Your task to perform on an android device: turn on notifications settings in the gmail app Image 0: 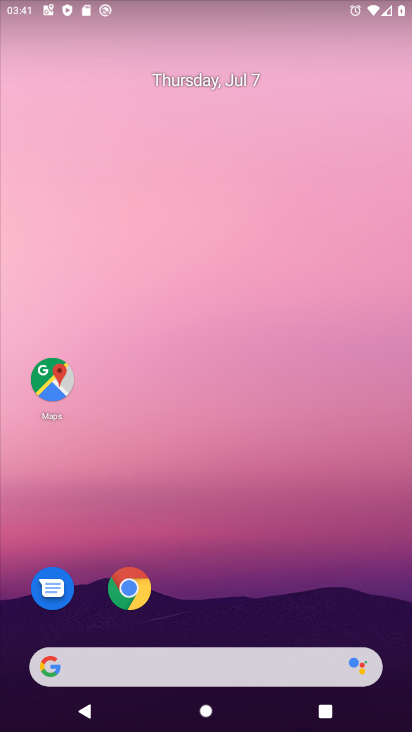
Step 0: drag from (186, 618) to (181, 340)
Your task to perform on an android device: turn on notifications settings in the gmail app Image 1: 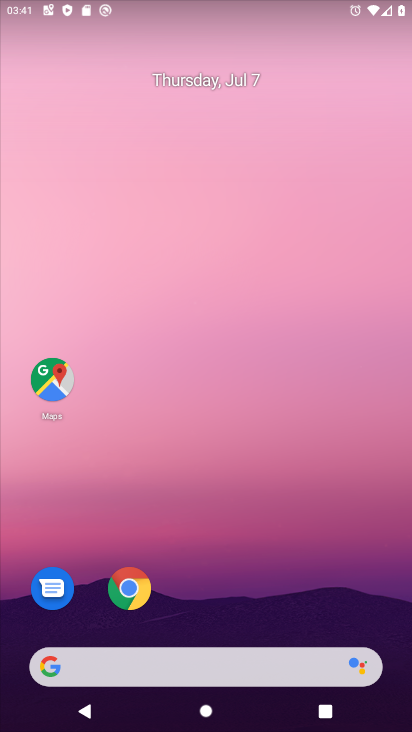
Step 1: drag from (252, 637) to (300, 201)
Your task to perform on an android device: turn on notifications settings in the gmail app Image 2: 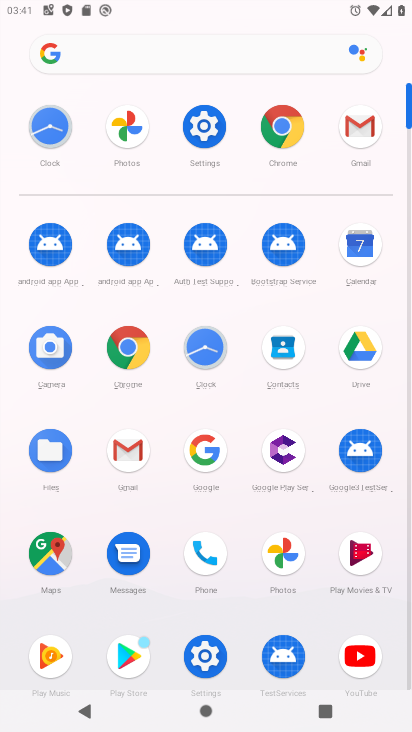
Step 2: click (130, 461)
Your task to perform on an android device: turn on notifications settings in the gmail app Image 3: 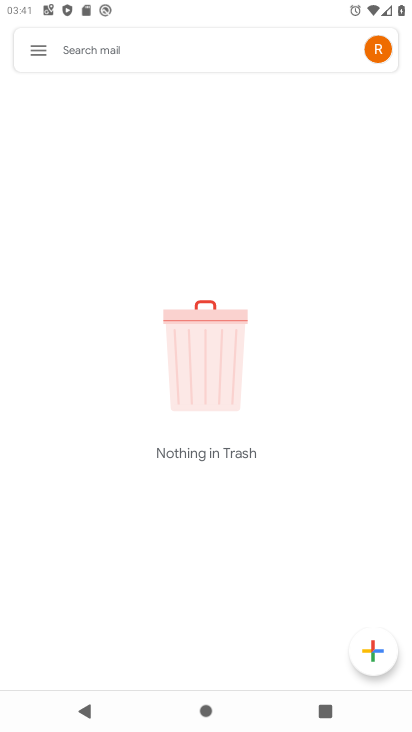
Step 3: click (30, 52)
Your task to perform on an android device: turn on notifications settings in the gmail app Image 4: 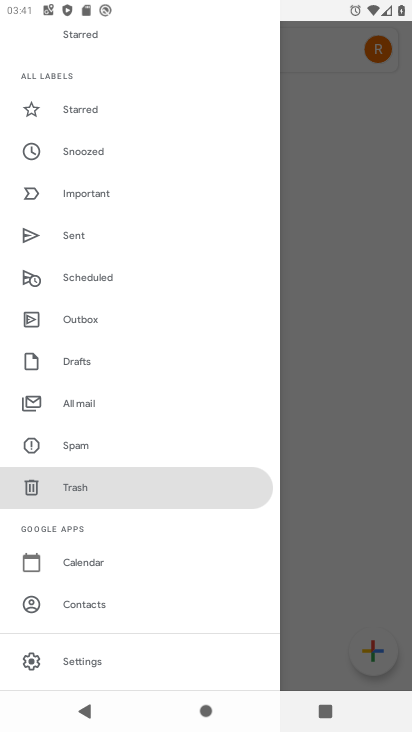
Step 4: click (97, 658)
Your task to perform on an android device: turn on notifications settings in the gmail app Image 5: 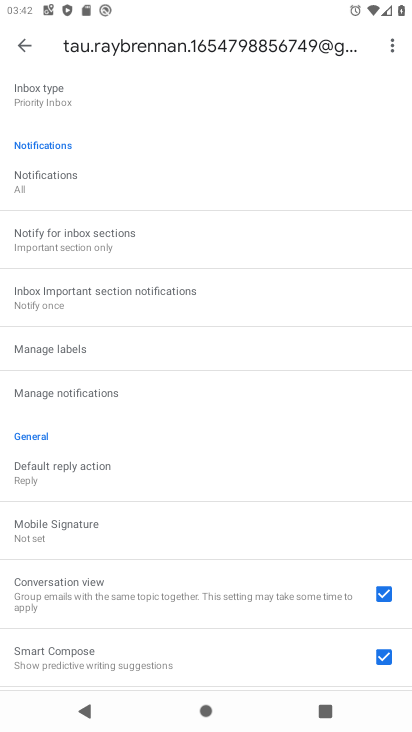
Step 5: click (58, 394)
Your task to perform on an android device: turn on notifications settings in the gmail app Image 6: 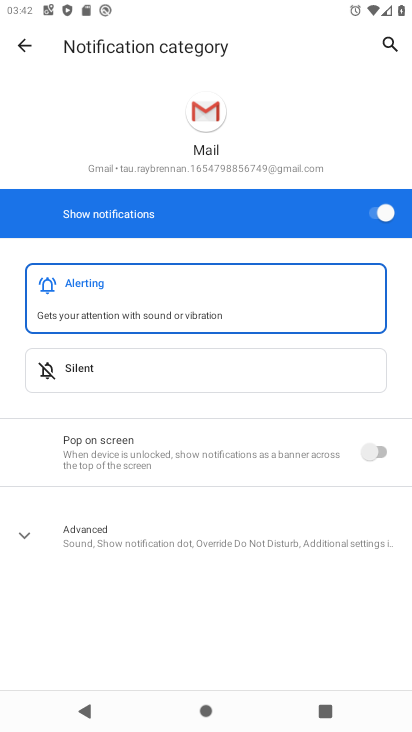
Step 6: task complete